Your task to perform on an android device: toggle wifi Image 0: 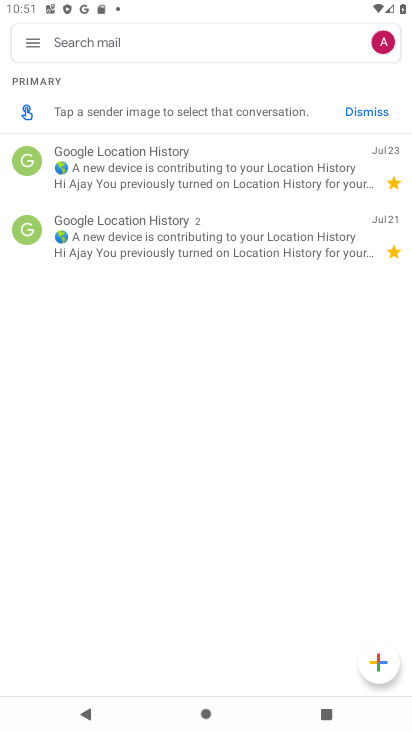
Step 0: press home button
Your task to perform on an android device: toggle wifi Image 1: 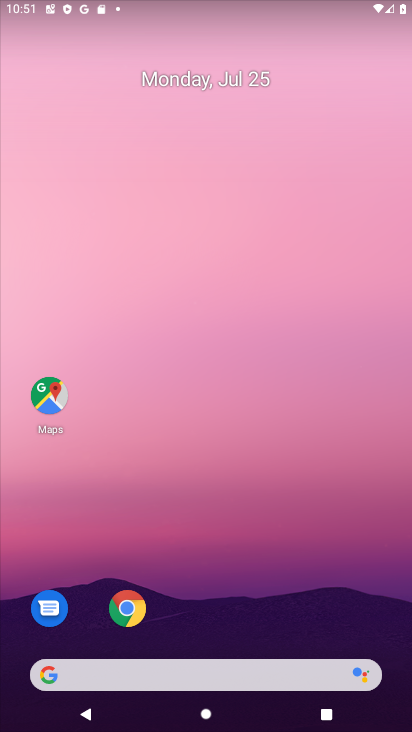
Step 1: drag from (234, 664) to (196, 23)
Your task to perform on an android device: toggle wifi Image 2: 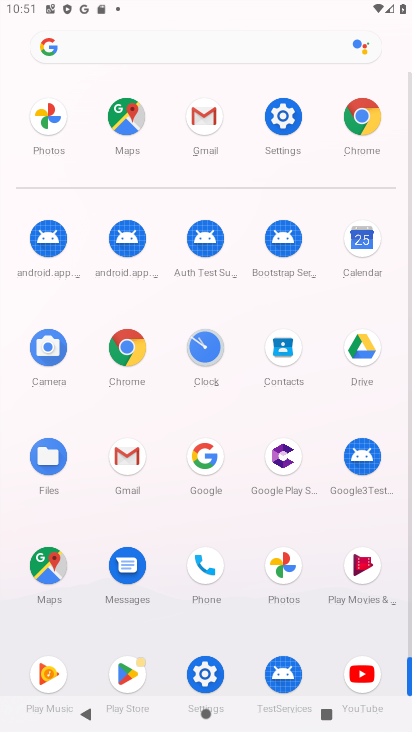
Step 2: click (268, 111)
Your task to perform on an android device: toggle wifi Image 3: 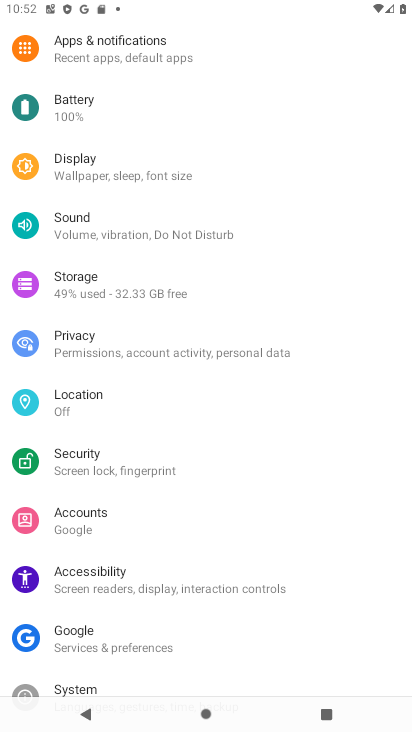
Step 3: drag from (124, 196) to (197, 655)
Your task to perform on an android device: toggle wifi Image 4: 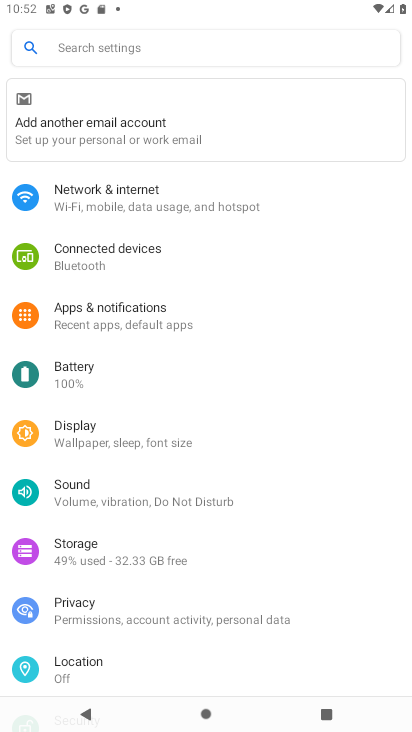
Step 4: click (183, 192)
Your task to perform on an android device: toggle wifi Image 5: 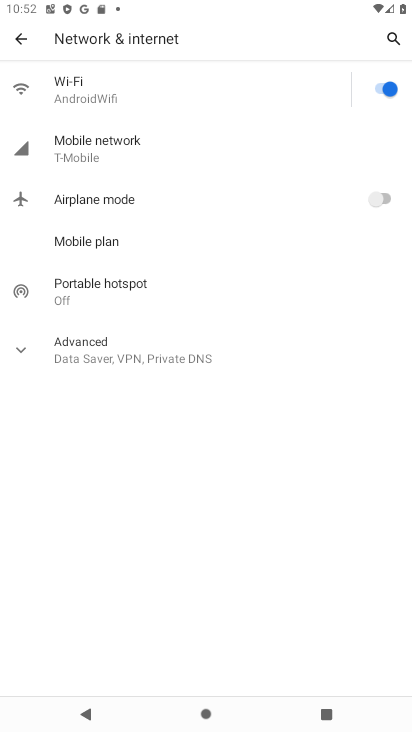
Step 5: click (379, 90)
Your task to perform on an android device: toggle wifi Image 6: 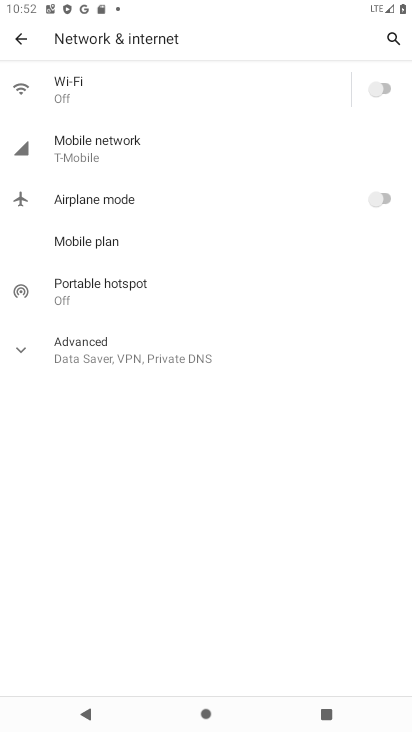
Step 6: task complete